Your task to perform on an android device: turn on wifi Image 0: 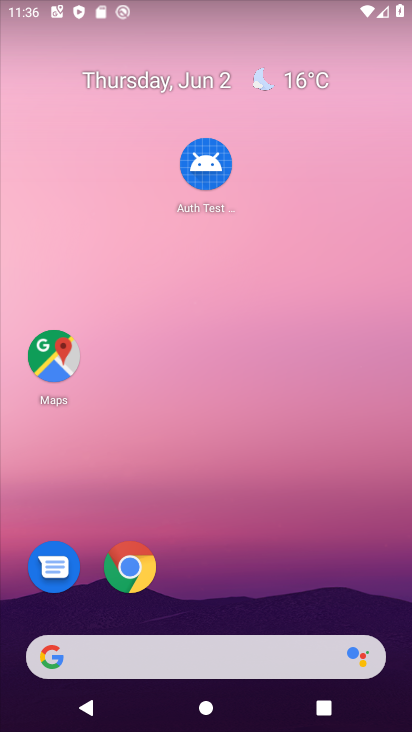
Step 0: drag from (197, 12) to (178, 678)
Your task to perform on an android device: turn on wifi Image 1: 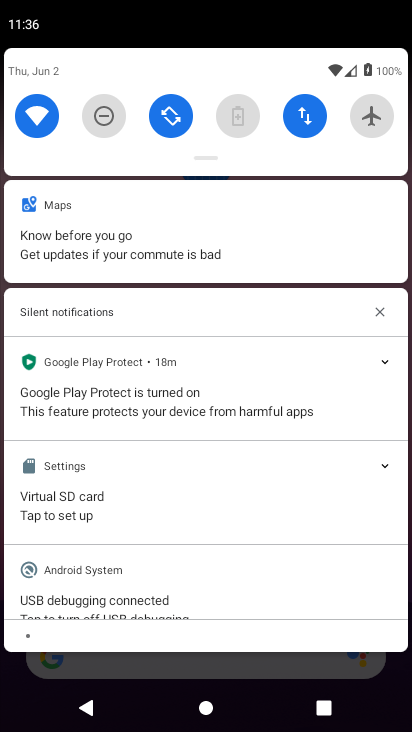
Step 1: task complete